Your task to perform on an android device: Open the calendar app, open the side menu, and click the "Day" option Image 0: 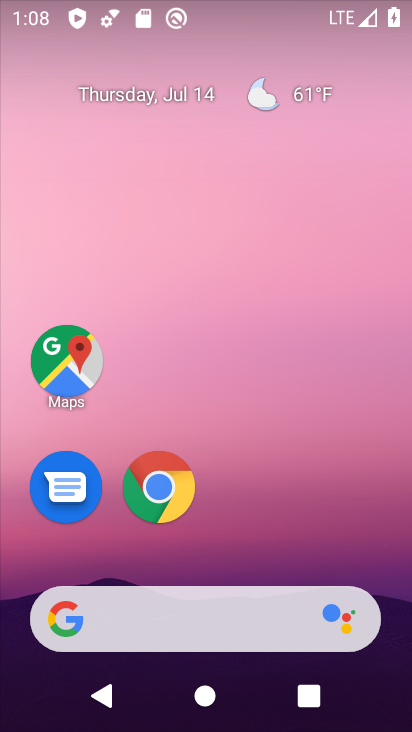
Step 0: drag from (366, 553) to (378, 158)
Your task to perform on an android device: Open the calendar app, open the side menu, and click the "Day" option Image 1: 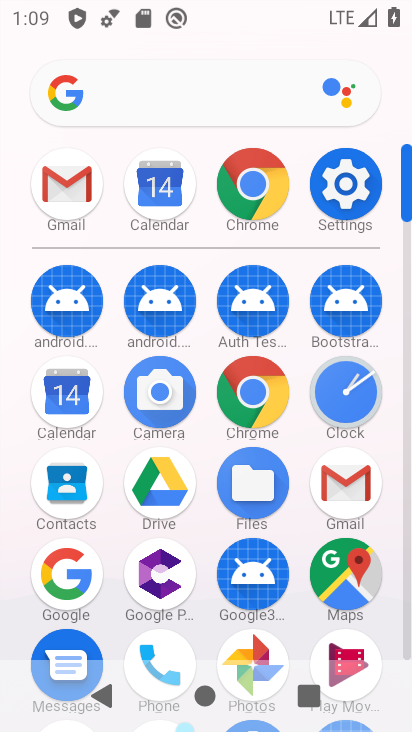
Step 1: click (70, 396)
Your task to perform on an android device: Open the calendar app, open the side menu, and click the "Day" option Image 2: 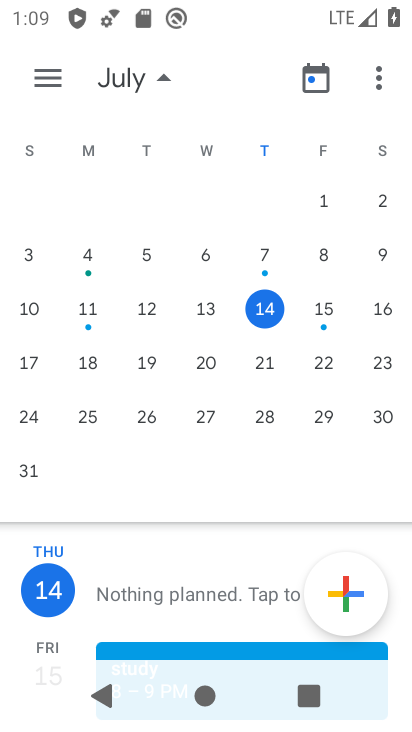
Step 2: click (48, 74)
Your task to perform on an android device: Open the calendar app, open the side menu, and click the "Day" option Image 3: 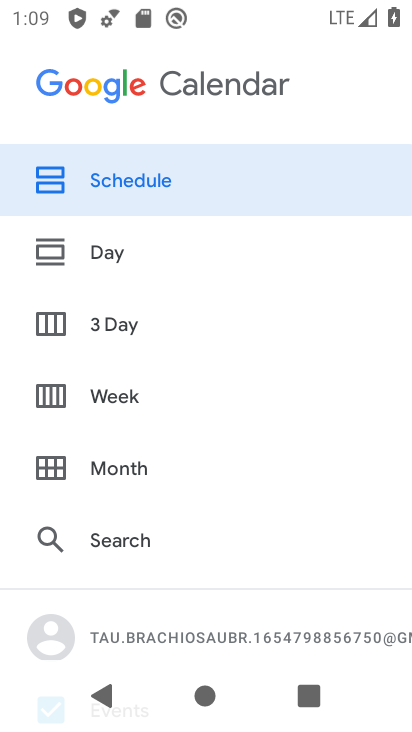
Step 3: drag from (321, 437) to (333, 358)
Your task to perform on an android device: Open the calendar app, open the side menu, and click the "Day" option Image 4: 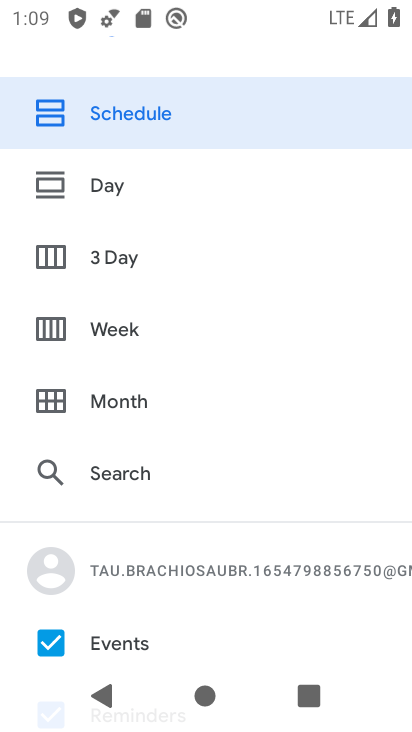
Step 4: drag from (305, 539) to (311, 427)
Your task to perform on an android device: Open the calendar app, open the side menu, and click the "Day" option Image 5: 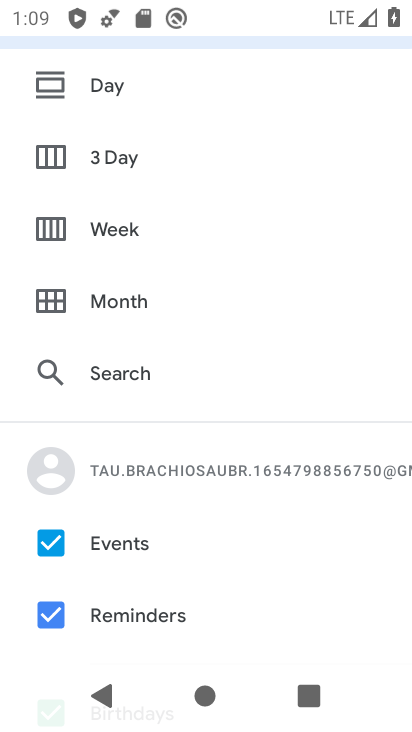
Step 5: drag from (309, 556) to (322, 360)
Your task to perform on an android device: Open the calendar app, open the side menu, and click the "Day" option Image 6: 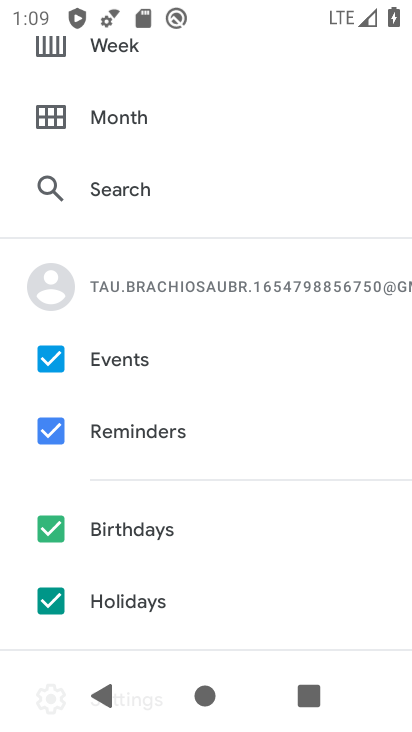
Step 6: drag from (352, 190) to (340, 321)
Your task to perform on an android device: Open the calendar app, open the side menu, and click the "Day" option Image 7: 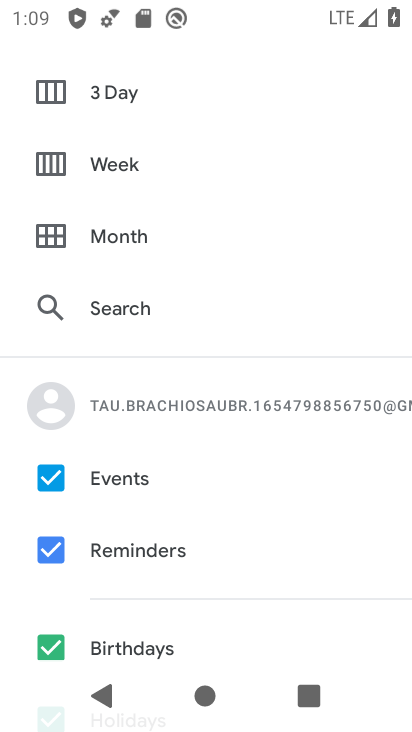
Step 7: drag from (336, 183) to (330, 308)
Your task to perform on an android device: Open the calendar app, open the side menu, and click the "Day" option Image 8: 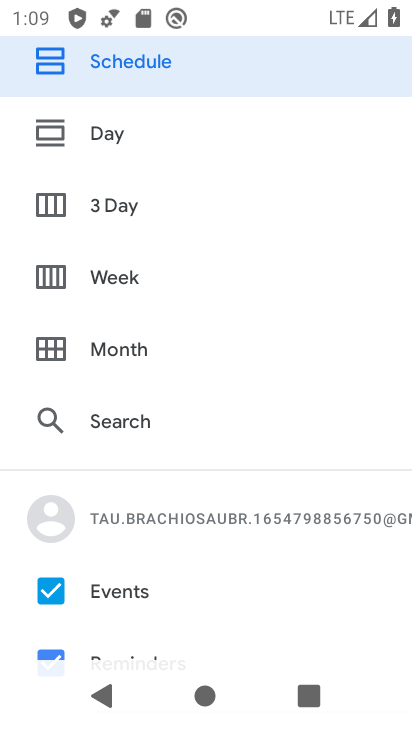
Step 8: drag from (327, 159) to (326, 363)
Your task to perform on an android device: Open the calendar app, open the side menu, and click the "Day" option Image 9: 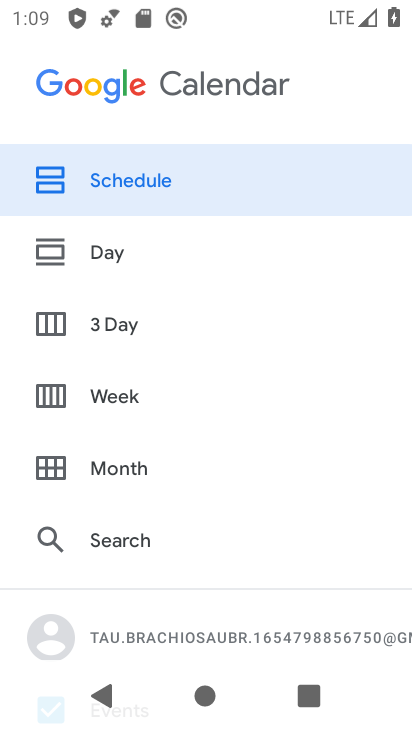
Step 9: click (123, 271)
Your task to perform on an android device: Open the calendar app, open the side menu, and click the "Day" option Image 10: 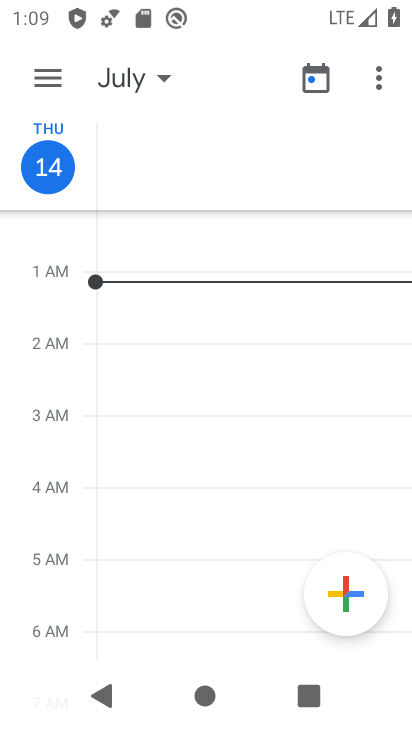
Step 10: task complete